Your task to perform on an android device: Show the shopping cart on costco.com. Add usb-c to usb-a to the cart on costco.com, then select checkout. Image 0: 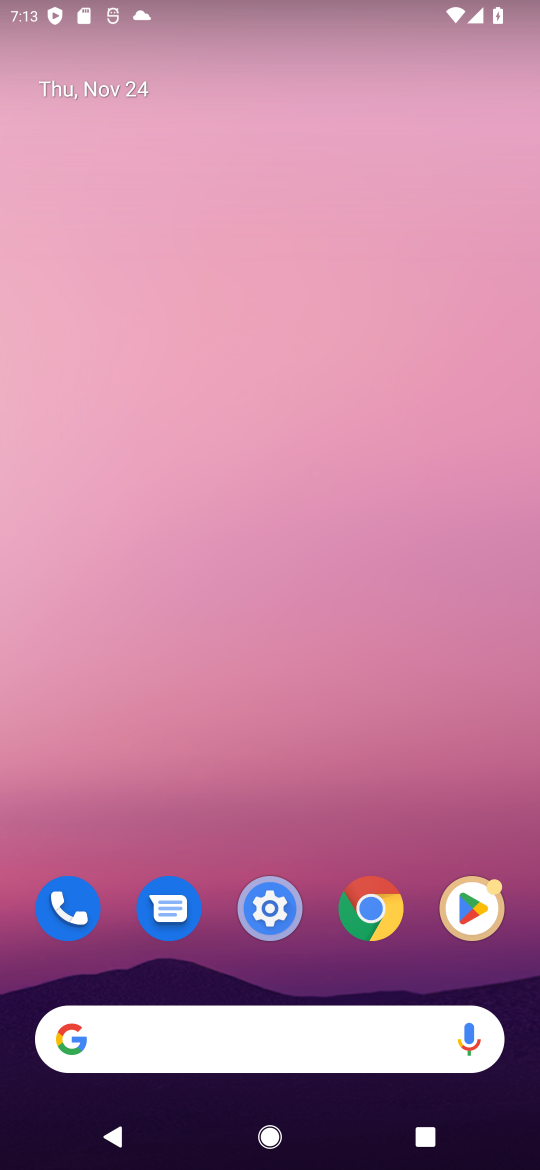
Step 0: click (221, 1061)
Your task to perform on an android device: Show the shopping cart on costco.com. Add usb-c to usb-a to the cart on costco.com, then select checkout. Image 1: 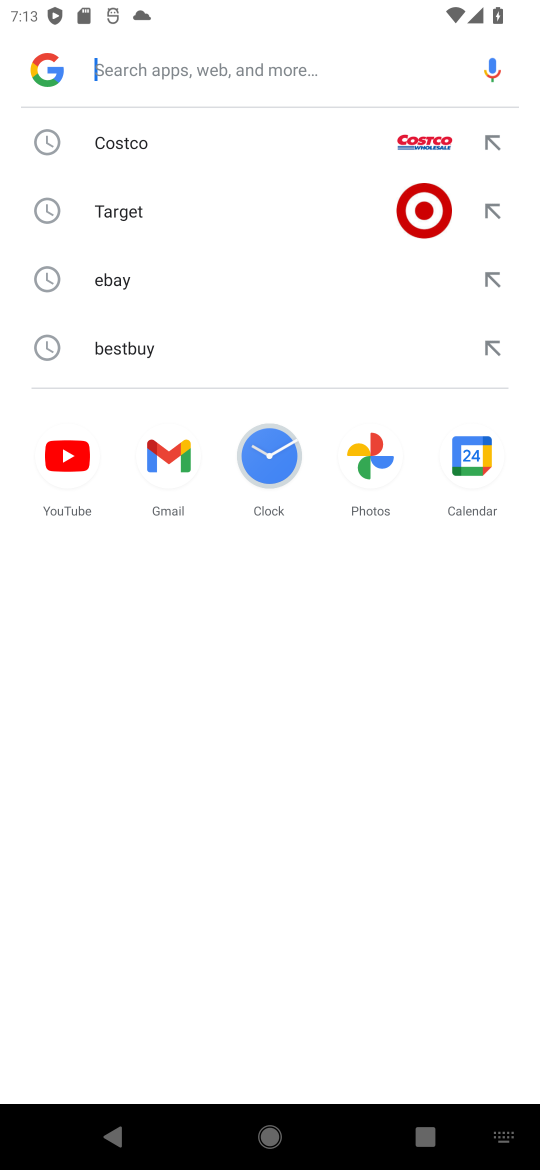
Step 1: click (401, 132)
Your task to perform on an android device: Show the shopping cart on costco.com. Add usb-c to usb-a to the cart on costco.com, then select checkout. Image 2: 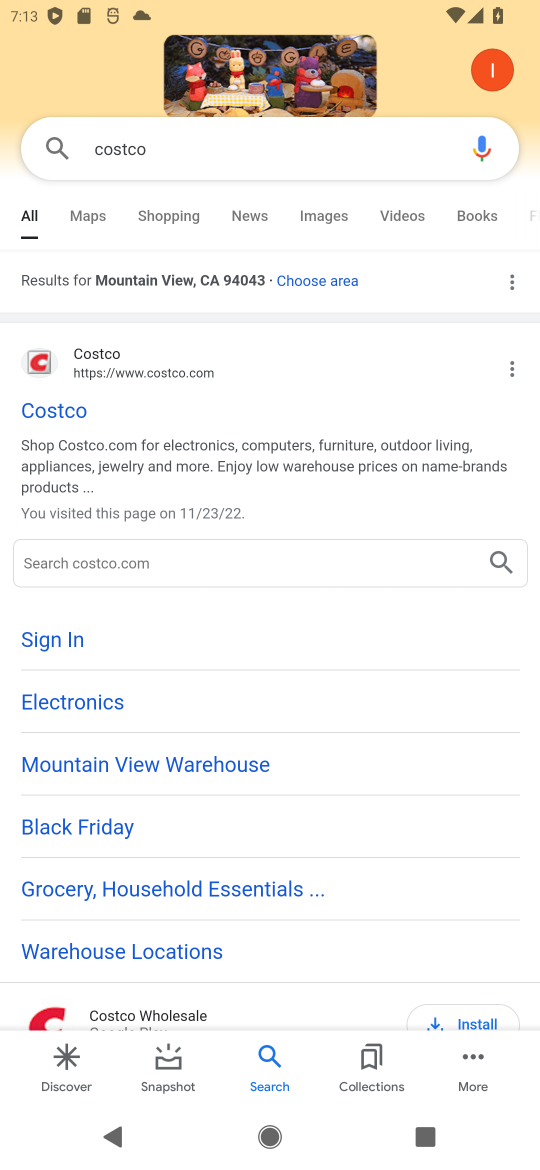
Step 2: click (55, 408)
Your task to perform on an android device: Show the shopping cart on costco.com. Add usb-c to usb-a to the cart on costco.com, then select checkout. Image 3: 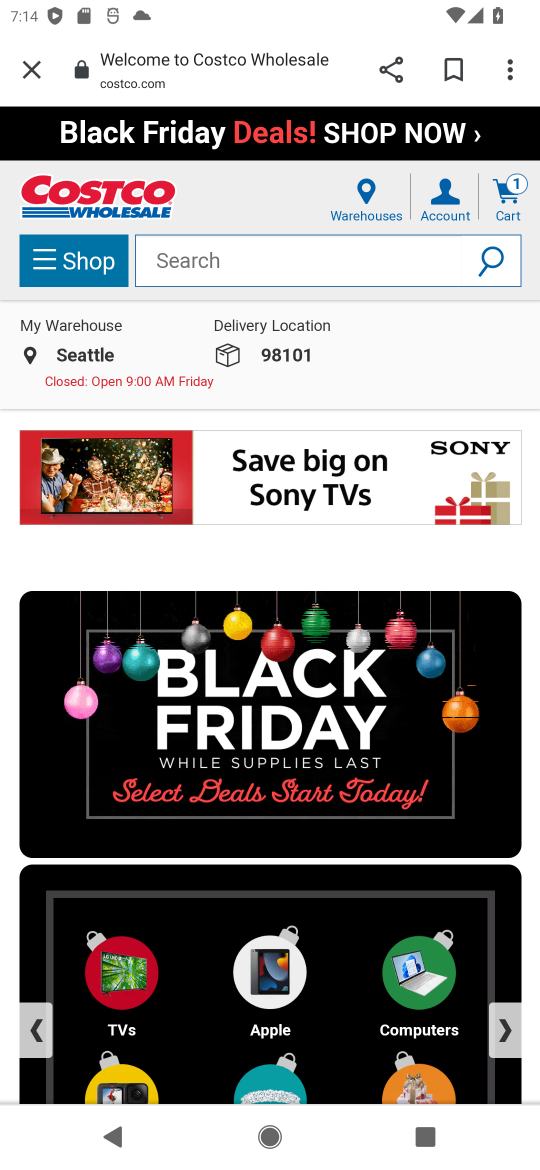
Step 3: click (375, 252)
Your task to perform on an android device: Show the shopping cart on costco.com. Add usb-c to usb-a to the cart on costco.com, then select checkout. Image 4: 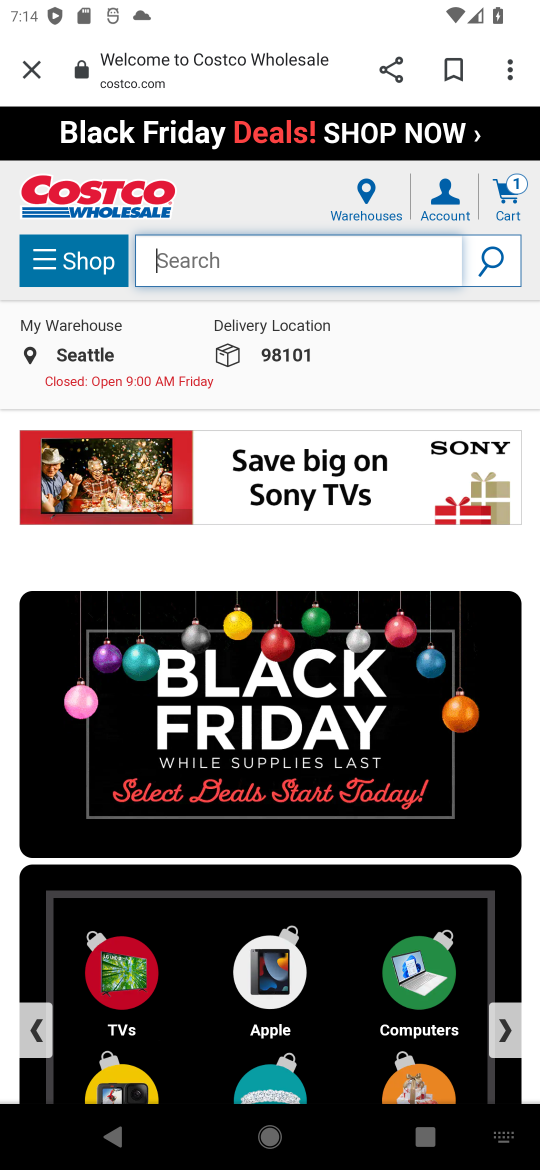
Step 4: type "usb-c to usb-a"
Your task to perform on an android device: Show the shopping cart on costco.com. Add usb-c to usb-a to the cart on costco.com, then select checkout. Image 5: 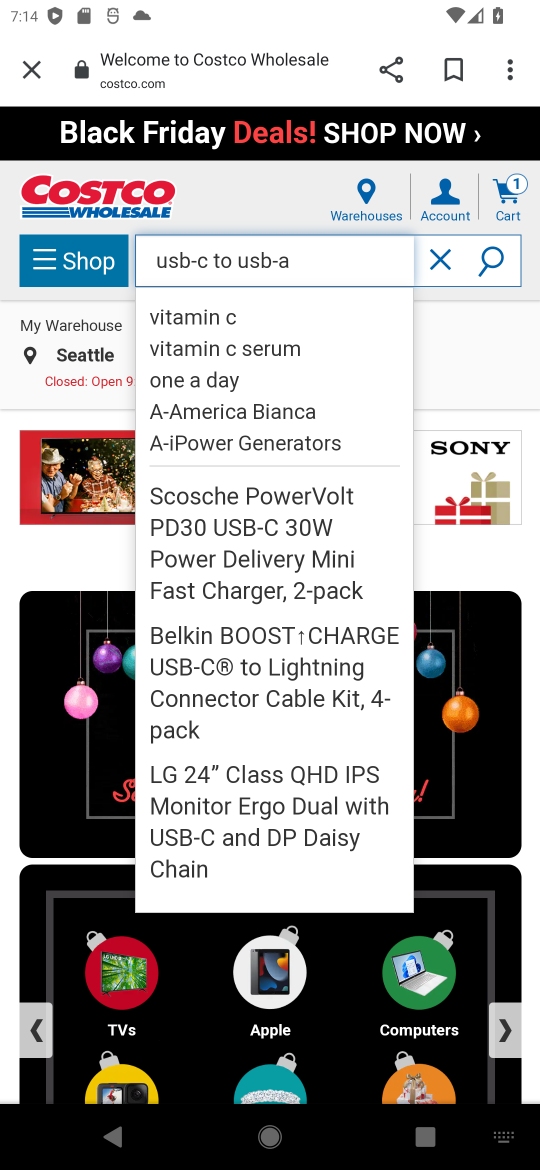
Step 5: click (482, 276)
Your task to perform on an android device: Show the shopping cart on costco.com. Add usb-c to usb-a to the cart on costco.com, then select checkout. Image 6: 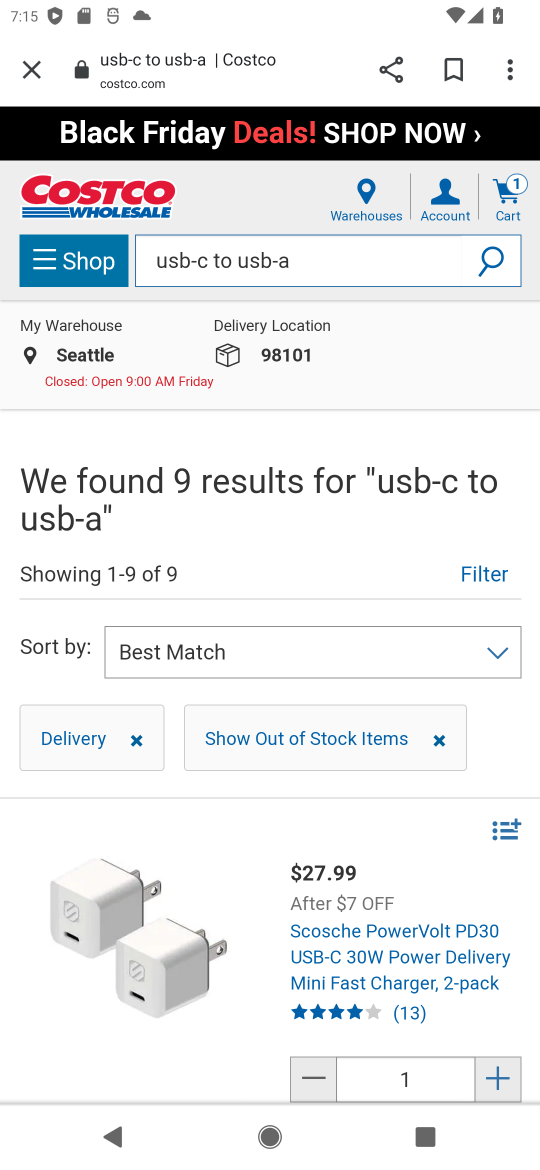
Step 6: task complete